Your task to perform on an android device: Open Chrome and go to settings Image 0: 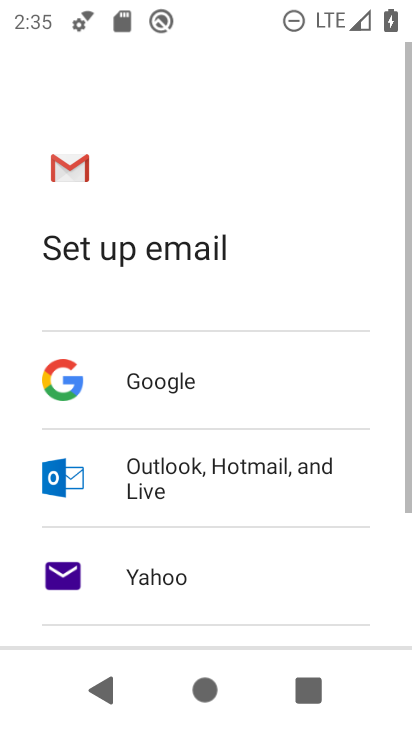
Step 0: press home button
Your task to perform on an android device: Open Chrome and go to settings Image 1: 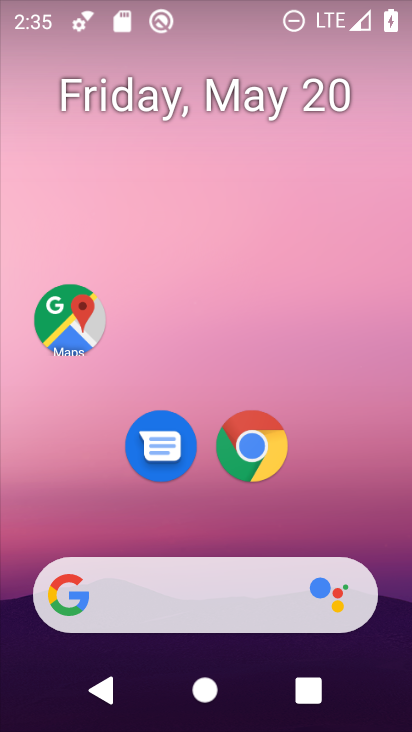
Step 1: click (253, 443)
Your task to perform on an android device: Open Chrome and go to settings Image 2: 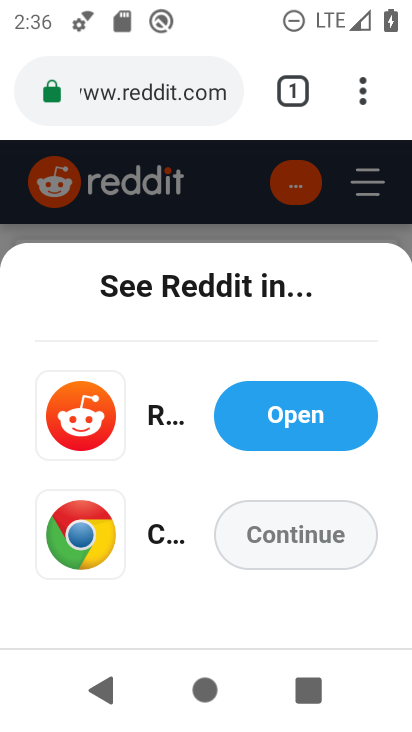
Step 2: click (363, 97)
Your task to perform on an android device: Open Chrome and go to settings Image 3: 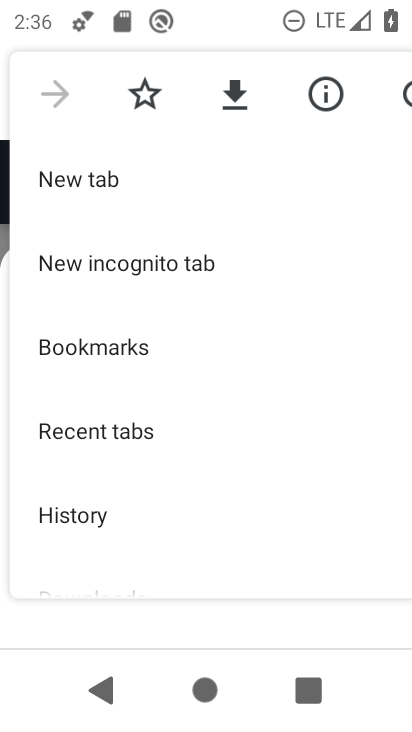
Step 3: drag from (170, 476) to (190, 163)
Your task to perform on an android device: Open Chrome and go to settings Image 4: 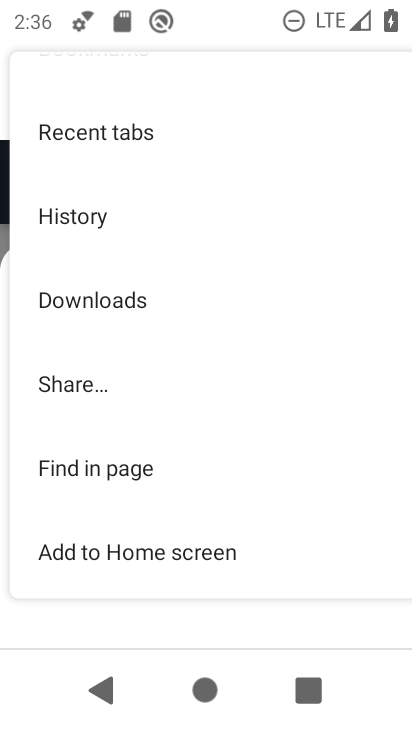
Step 4: drag from (234, 497) to (279, 163)
Your task to perform on an android device: Open Chrome and go to settings Image 5: 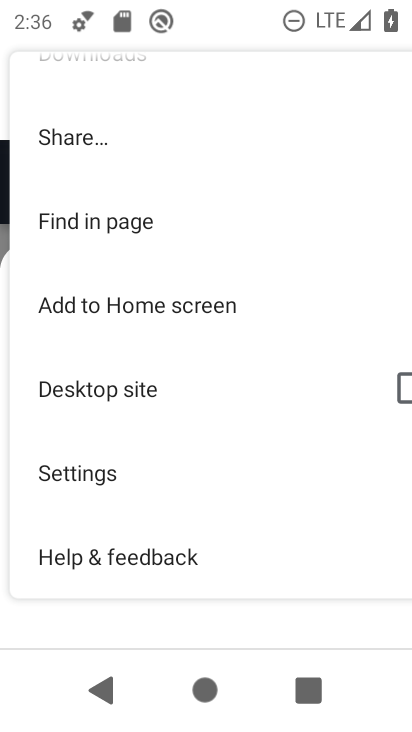
Step 5: click (78, 477)
Your task to perform on an android device: Open Chrome and go to settings Image 6: 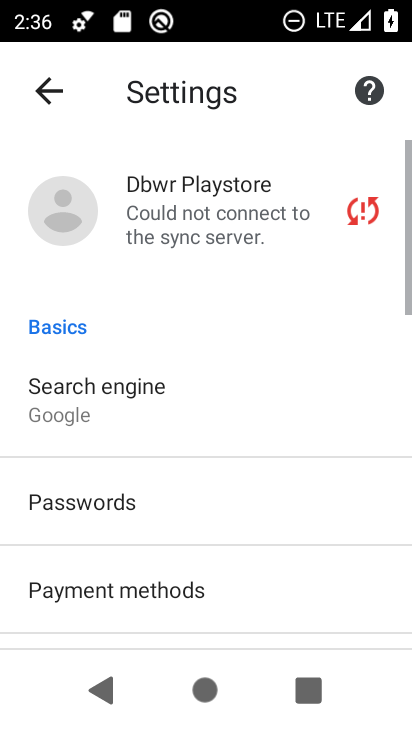
Step 6: task complete